Your task to perform on an android device: set default search engine in the chrome app Image 0: 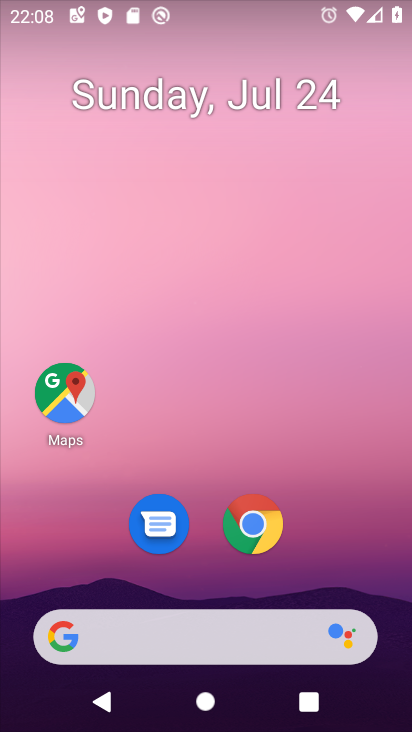
Step 0: click (265, 522)
Your task to perform on an android device: set default search engine in the chrome app Image 1: 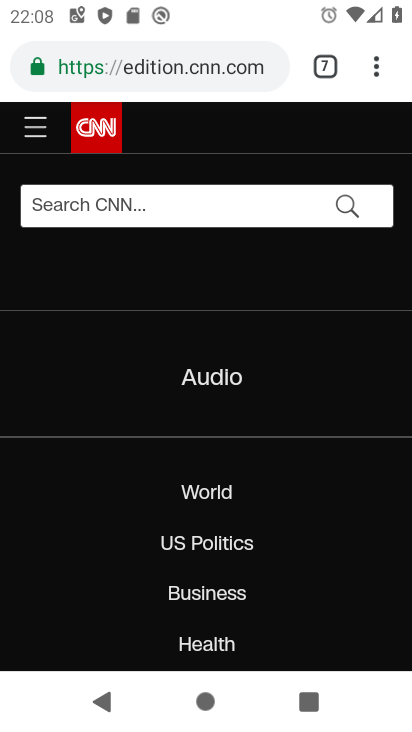
Step 1: drag from (381, 61) to (229, 519)
Your task to perform on an android device: set default search engine in the chrome app Image 2: 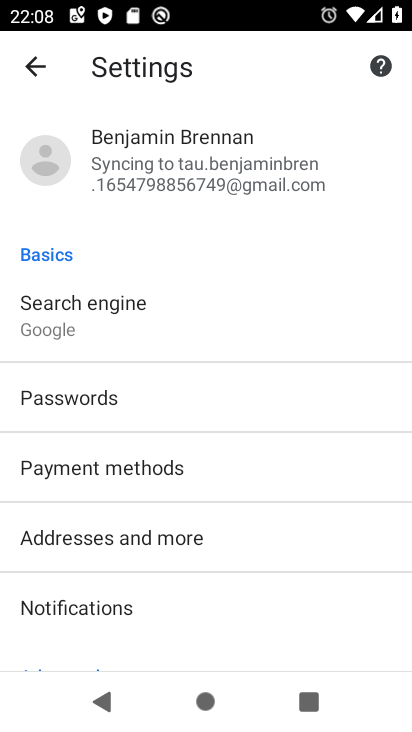
Step 2: click (82, 311)
Your task to perform on an android device: set default search engine in the chrome app Image 3: 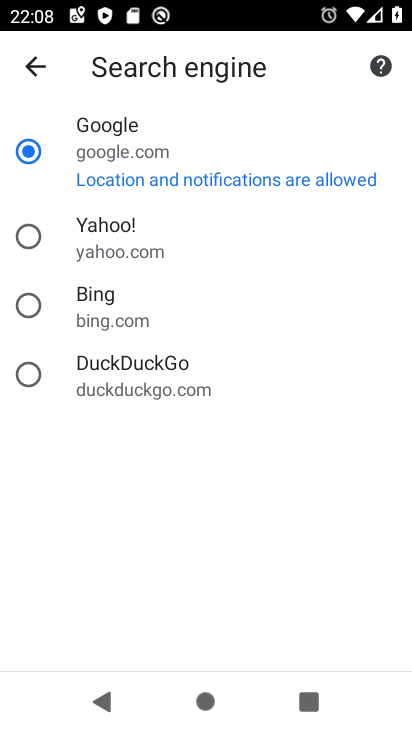
Step 3: click (20, 237)
Your task to perform on an android device: set default search engine in the chrome app Image 4: 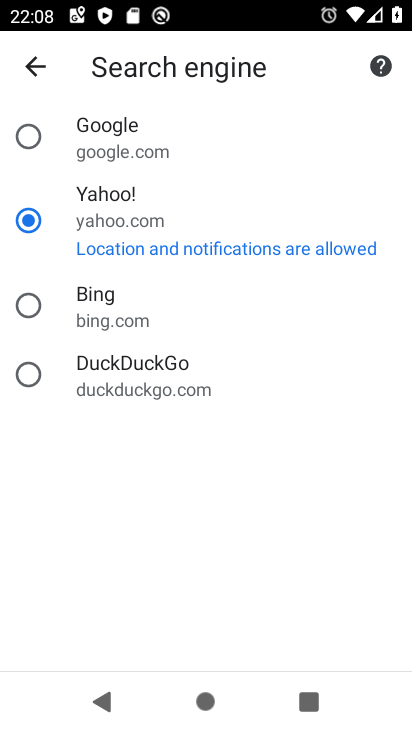
Step 4: task complete